Your task to perform on an android device: Go to wifi settings Image 0: 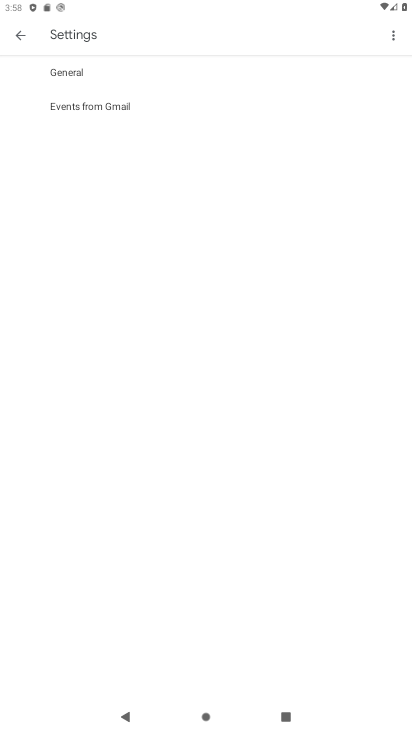
Step 0: press home button
Your task to perform on an android device: Go to wifi settings Image 1: 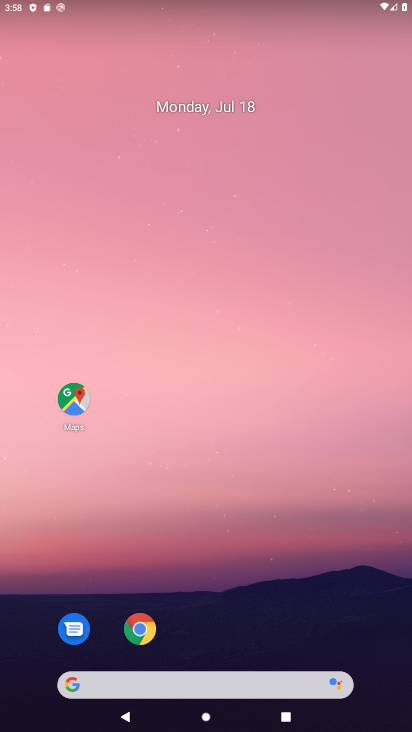
Step 1: drag from (240, 637) to (321, 338)
Your task to perform on an android device: Go to wifi settings Image 2: 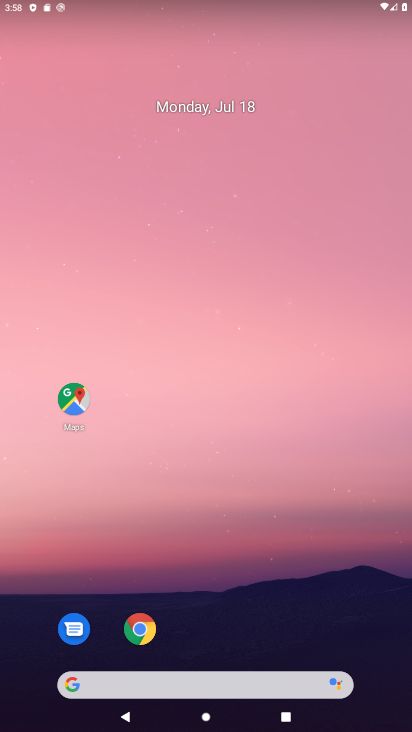
Step 2: drag from (204, 604) to (340, 216)
Your task to perform on an android device: Go to wifi settings Image 3: 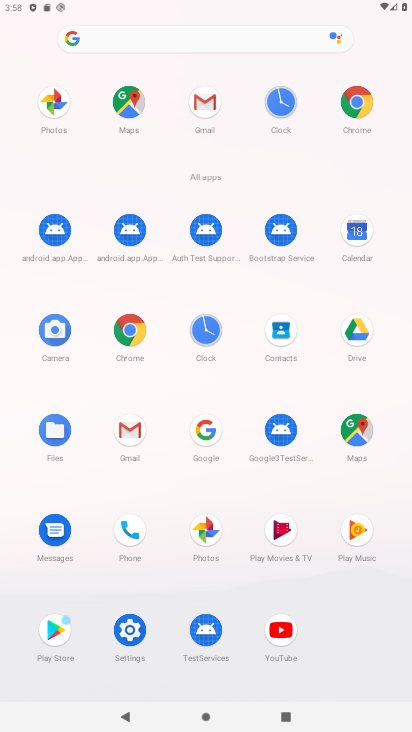
Step 3: click (131, 630)
Your task to perform on an android device: Go to wifi settings Image 4: 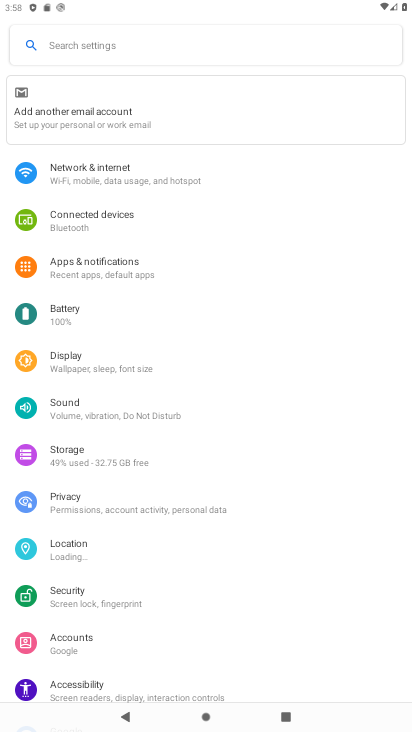
Step 4: click (207, 190)
Your task to perform on an android device: Go to wifi settings Image 5: 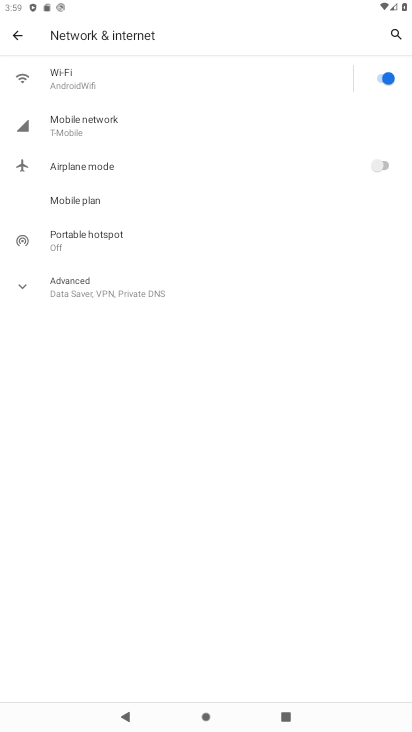
Step 5: click (156, 88)
Your task to perform on an android device: Go to wifi settings Image 6: 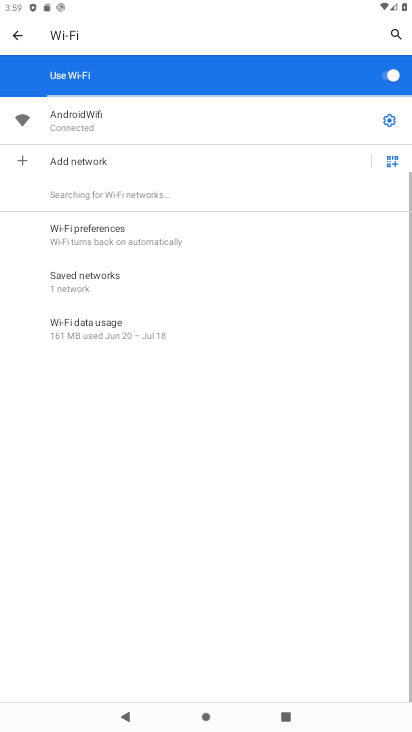
Step 6: task complete